Your task to perform on an android device: Google the capital of Canada Image 0: 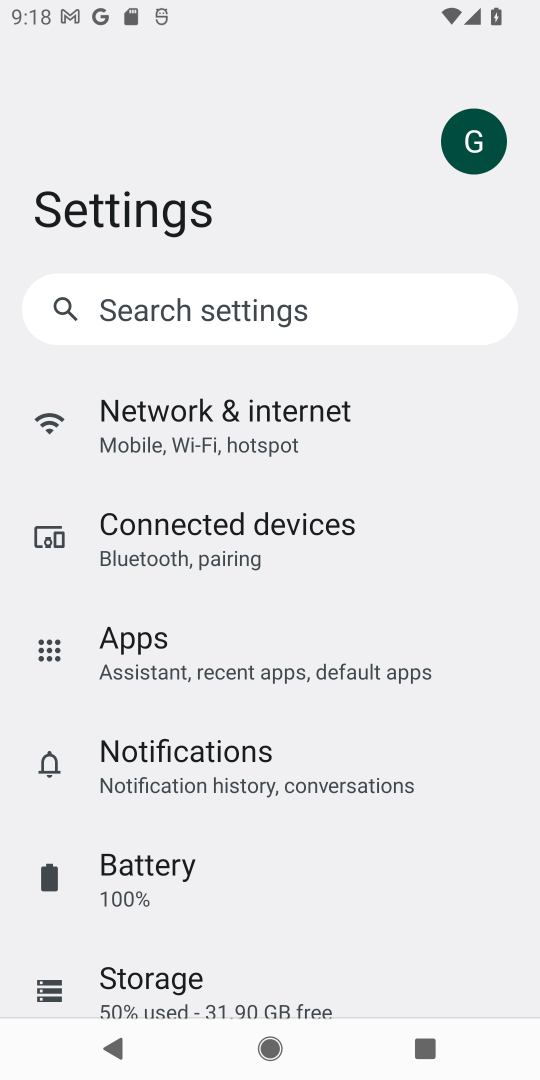
Step 0: press home button
Your task to perform on an android device: Google the capital of Canada Image 1: 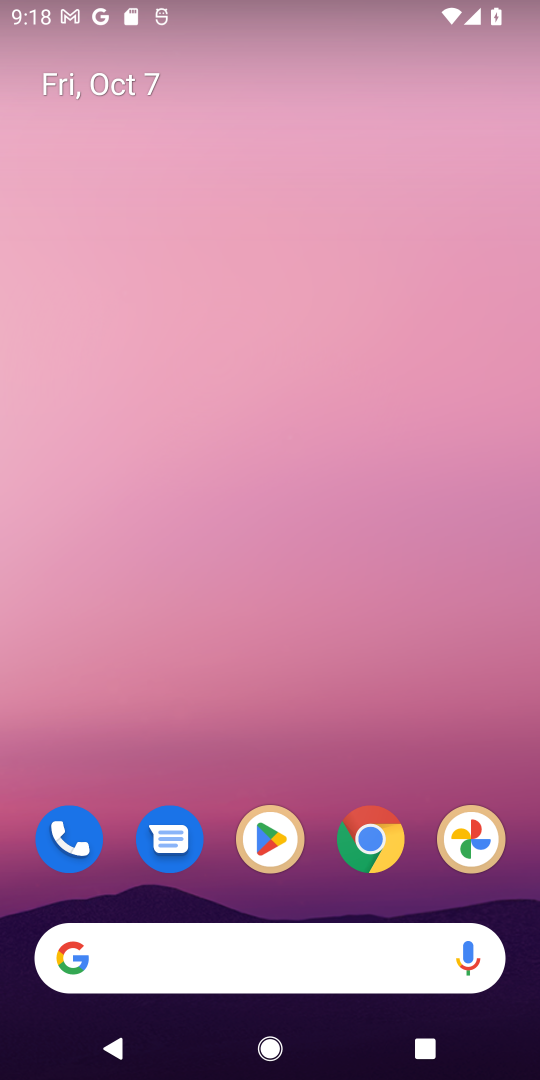
Step 1: click (374, 831)
Your task to perform on an android device: Google the capital of Canada Image 2: 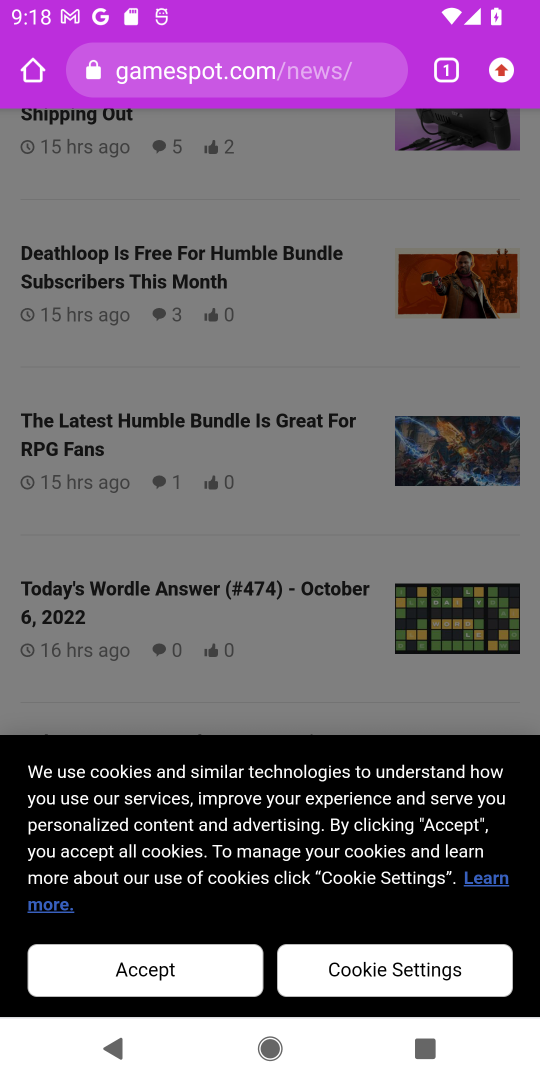
Step 2: click (254, 77)
Your task to perform on an android device: Google the capital of Canada Image 3: 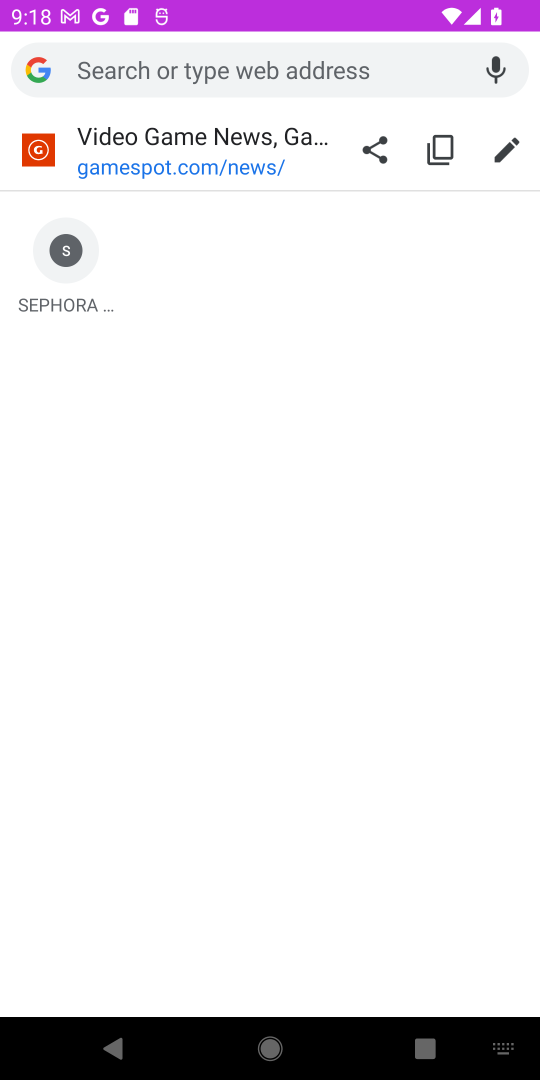
Step 3: type "capital of canada"
Your task to perform on an android device: Google the capital of Canada Image 4: 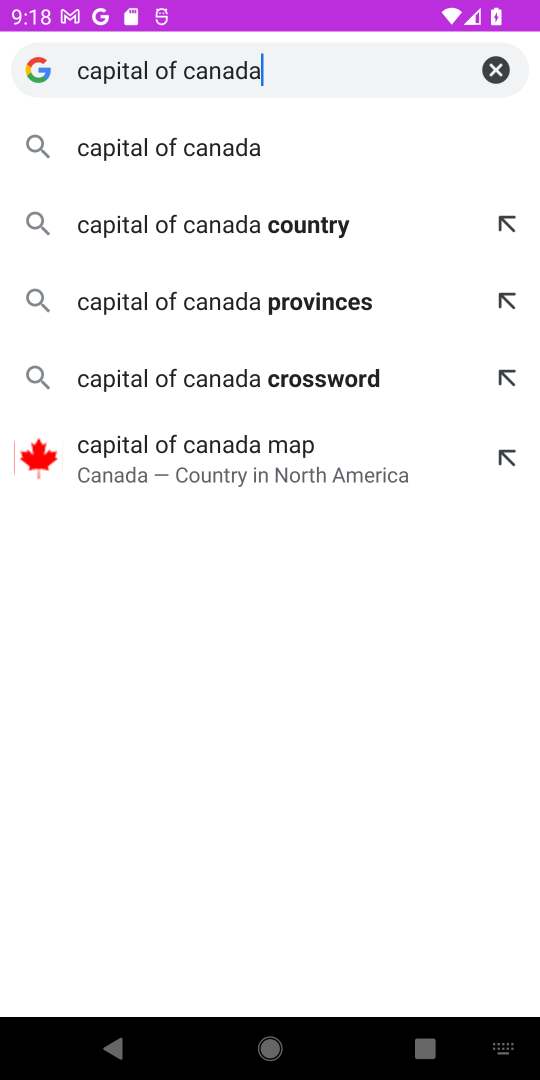
Step 4: click (223, 145)
Your task to perform on an android device: Google the capital of Canada Image 5: 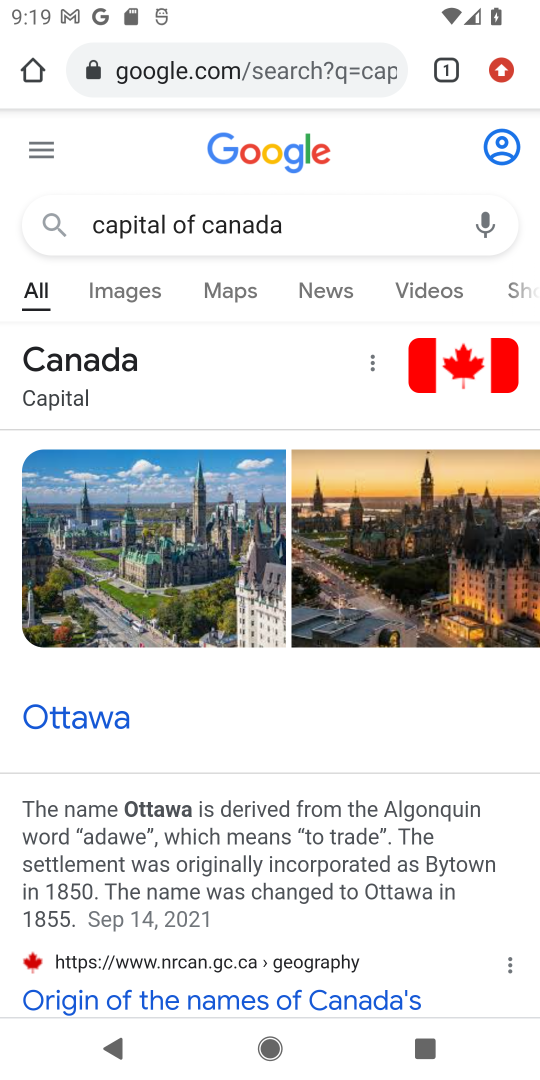
Step 5: task complete